Your task to perform on an android device: change timer sound Image 0: 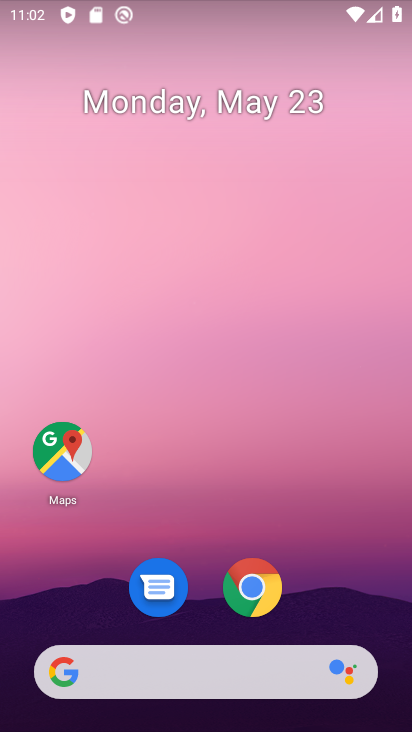
Step 0: drag from (266, 60) to (264, 2)
Your task to perform on an android device: change timer sound Image 1: 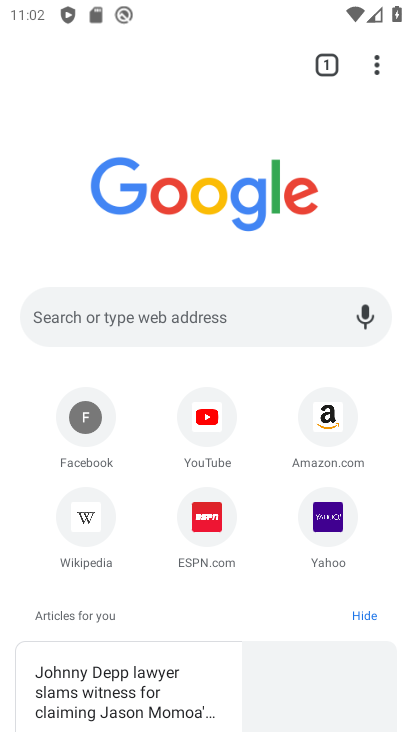
Step 1: press home button
Your task to perform on an android device: change timer sound Image 2: 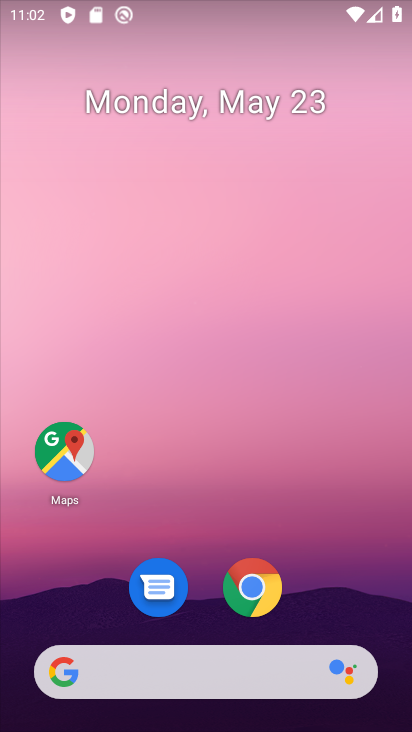
Step 2: drag from (374, 618) to (342, 110)
Your task to perform on an android device: change timer sound Image 3: 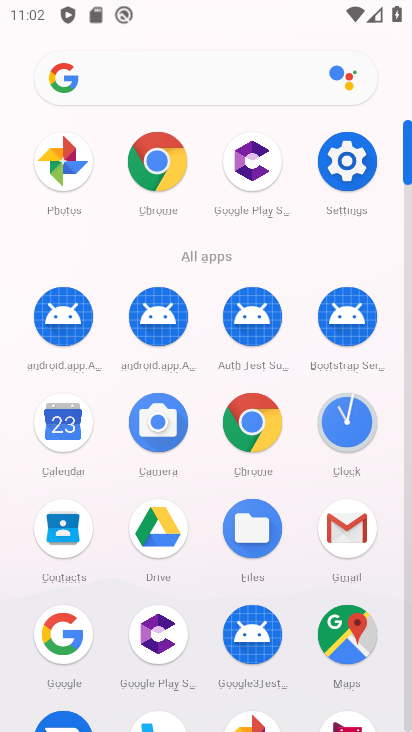
Step 3: click (363, 438)
Your task to perform on an android device: change timer sound Image 4: 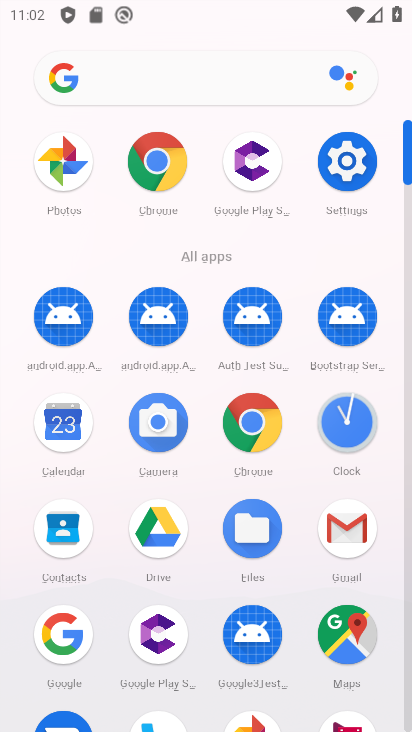
Step 4: click (363, 438)
Your task to perform on an android device: change timer sound Image 5: 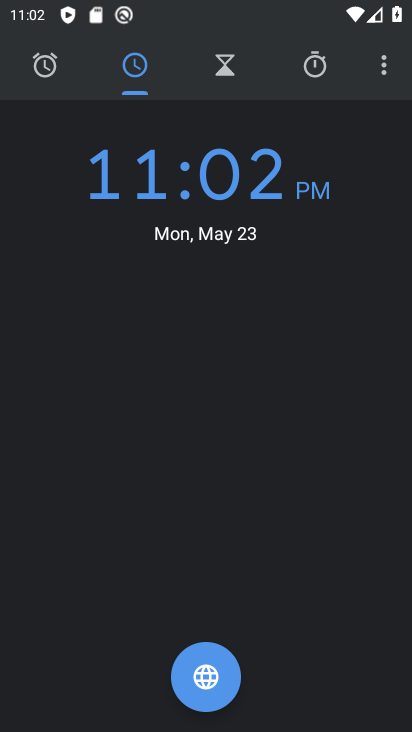
Step 5: click (388, 71)
Your task to perform on an android device: change timer sound Image 6: 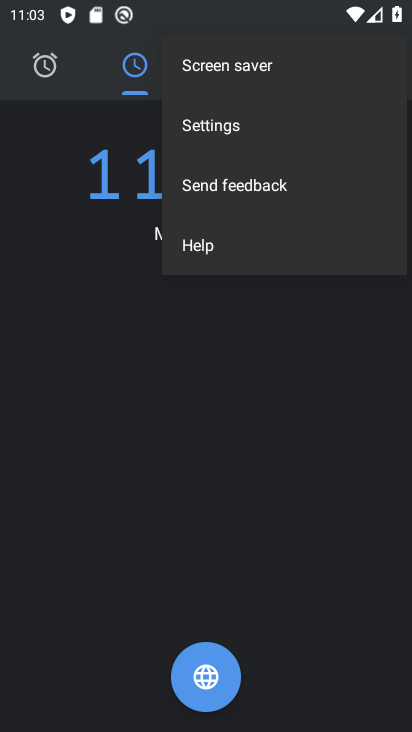
Step 6: click (321, 119)
Your task to perform on an android device: change timer sound Image 7: 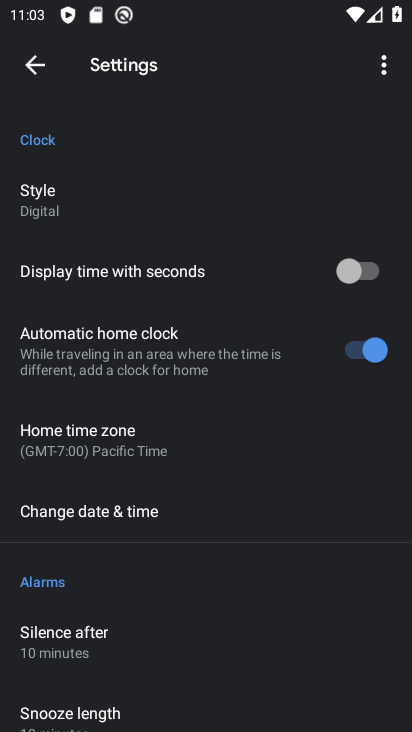
Step 7: drag from (226, 678) to (180, 240)
Your task to perform on an android device: change timer sound Image 8: 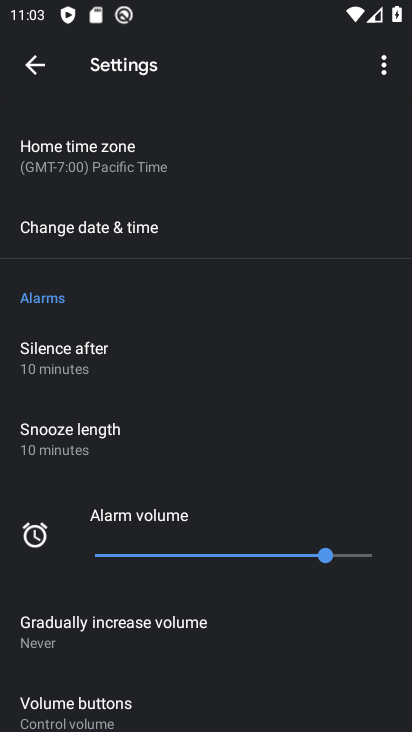
Step 8: drag from (188, 671) to (175, 317)
Your task to perform on an android device: change timer sound Image 9: 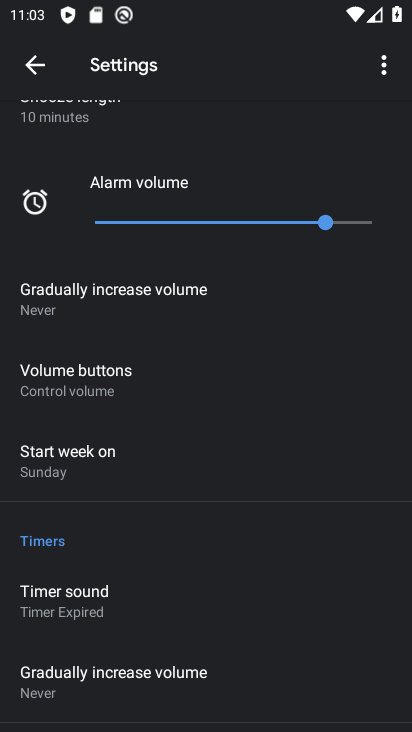
Step 9: click (194, 604)
Your task to perform on an android device: change timer sound Image 10: 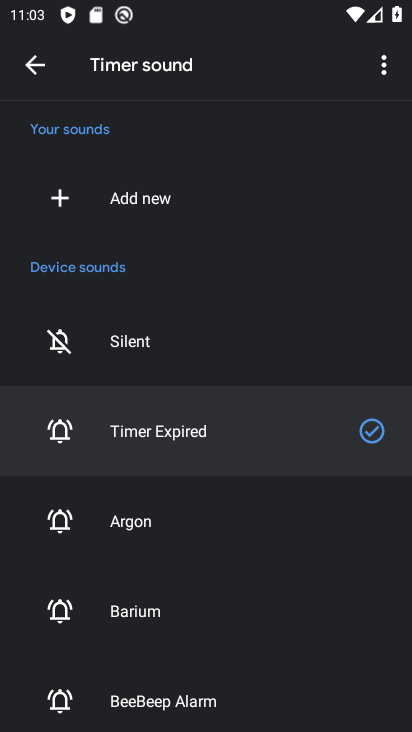
Step 10: click (192, 614)
Your task to perform on an android device: change timer sound Image 11: 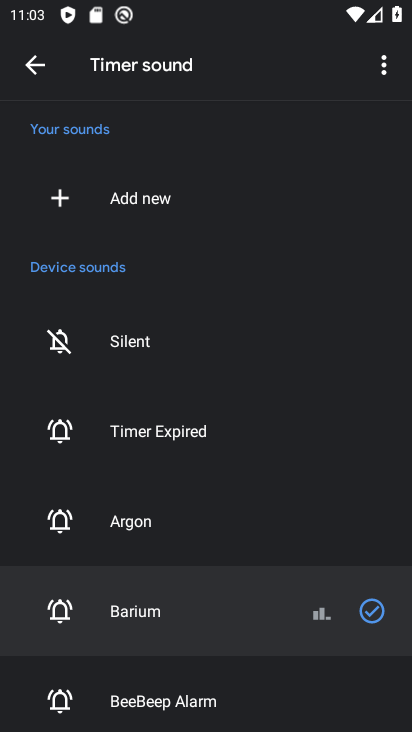
Step 11: task complete